Your task to perform on an android device: Go to Maps Image 0: 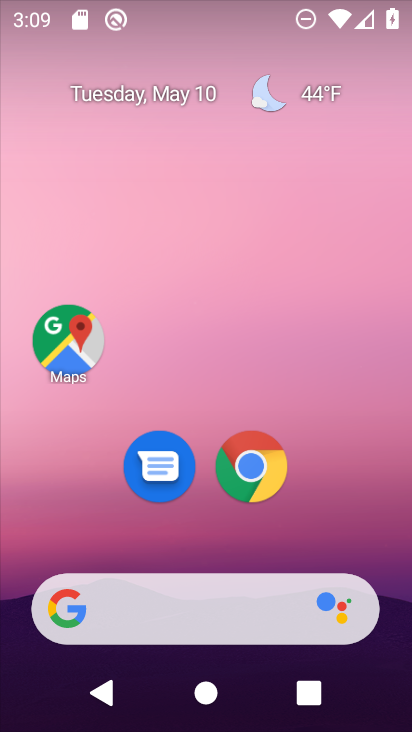
Step 0: click (54, 361)
Your task to perform on an android device: Go to Maps Image 1: 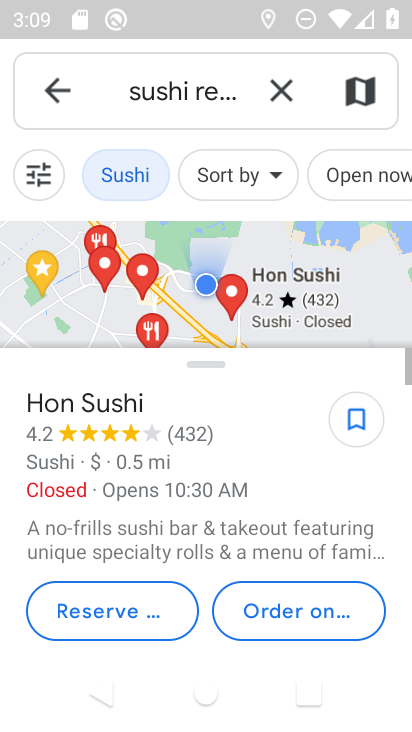
Step 1: click (47, 100)
Your task to perform on an android device: Go to Maps Image 2: 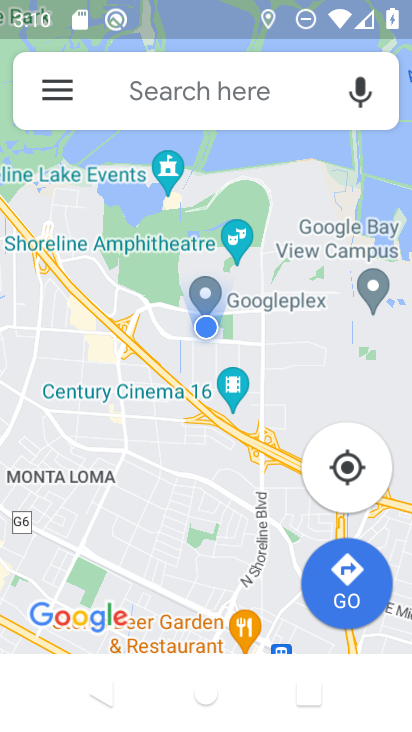
Step 2: task complete